Your task to perform on an android device: Show me the alarms in the clock app Image 0: 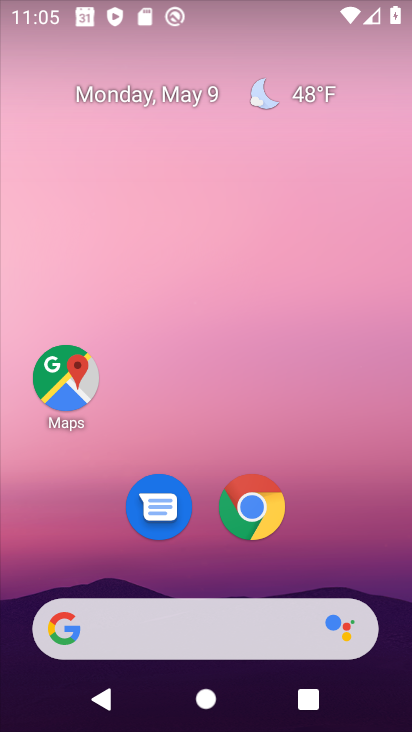
Step 0: drag from (300, 491) to (306, 105)
Your task to perform on an android device: Show me the alarms in the clock app Image 1: 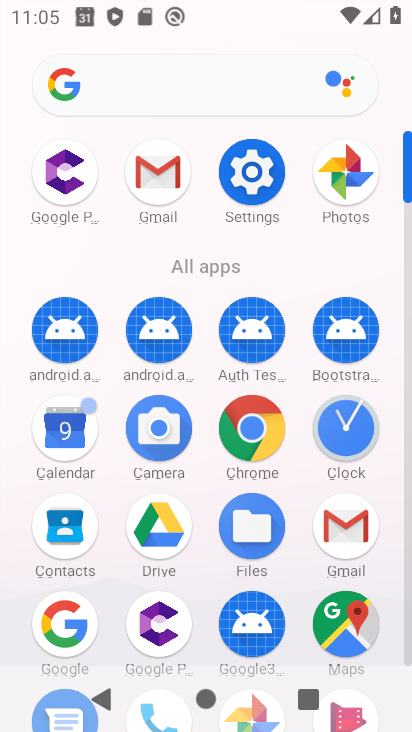
Step 1: click (339, 436)
Your task to perform on an android device: Show me the alarms in the clock app Image 2: 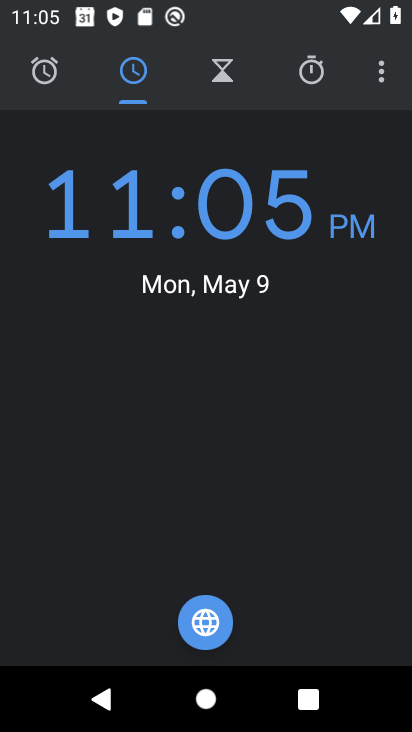
Step 2: click (46, 68)
Your task to perform on an android device: Show me the alarms in the clock app Image 3: 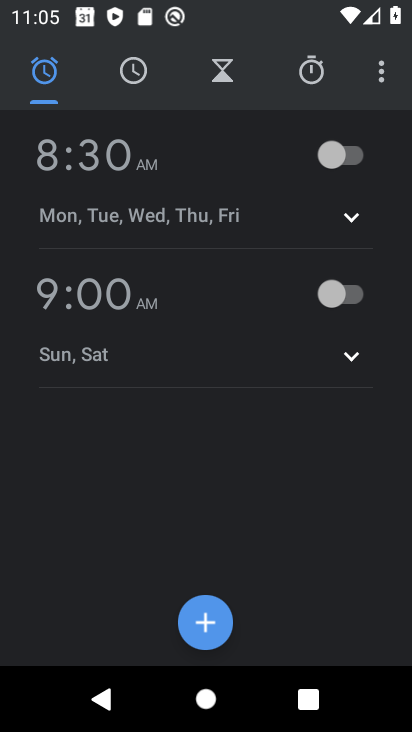
Step 3: task complete